Your task to perform on an android device: open a new tab in the chrome app Image 0: 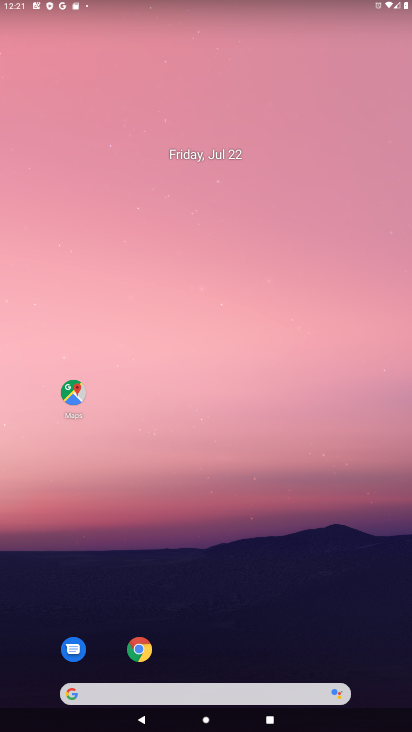
Step 0: drag from (335, 569) to (240, 93)
Your task to perform on an android device: open a new tab in the chrome app Image 1: 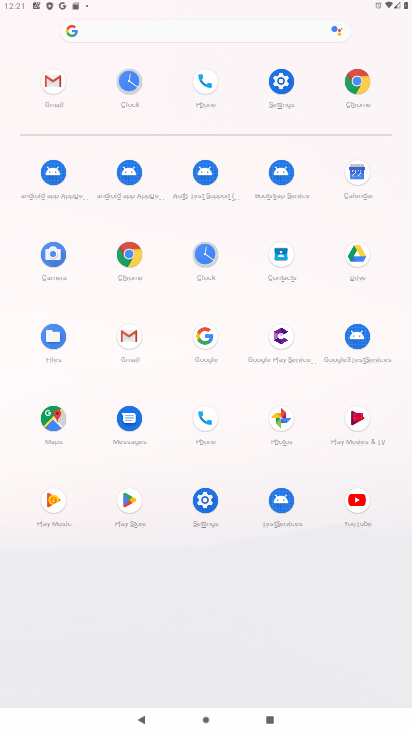
Step 1: click (133, 257)
Your task to perform on an android device: open a new tab in the chrome app Image 2: 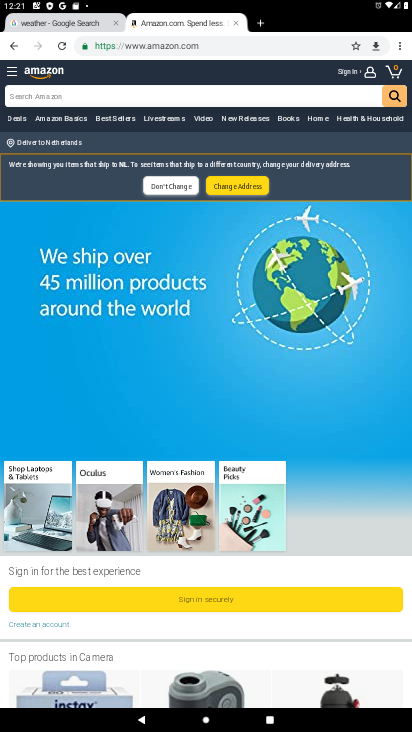
Step 2: click (260, 20)
Your task to perform on an android device: open a new tab in the chrome app Image 3: 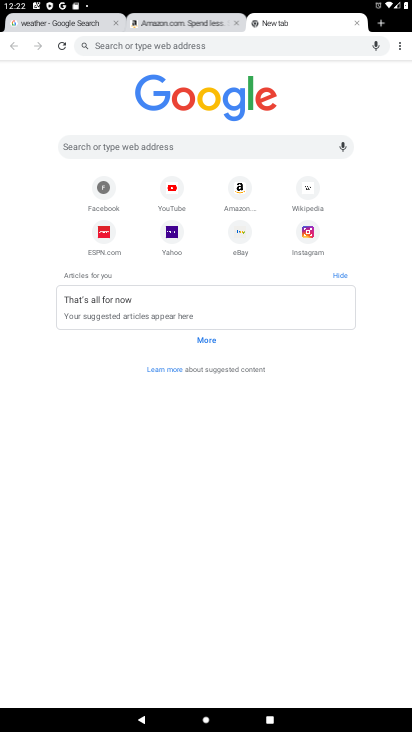
Step 3: task complete